Your task to perform on an android device: Do I have any events this weekend? Image 0: 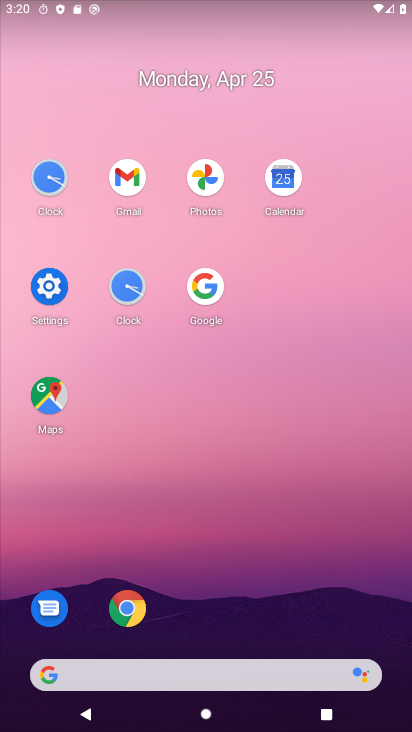
Step 0: click (290, 457)
Your task to perform on an android device: Do I have any events this weekend? Image 1: 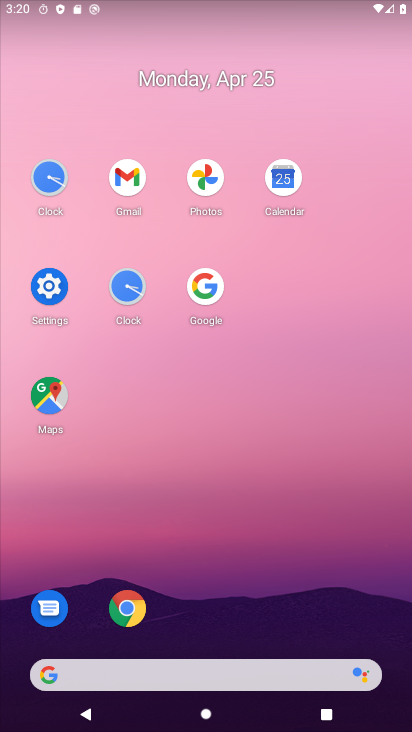
Step 1: click (282, 178)
Your task to perform on an android device: Do I have any events this weekend? Image 2: 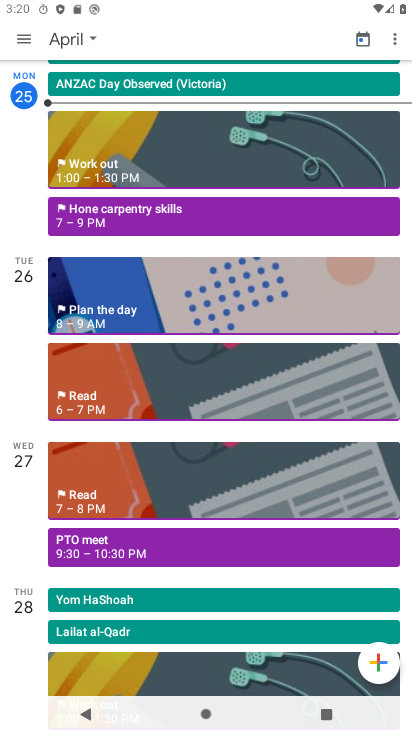
Step 2: click (23, 45)
Your task to perform on an android device: Do I have any events this weekend? Image 3: 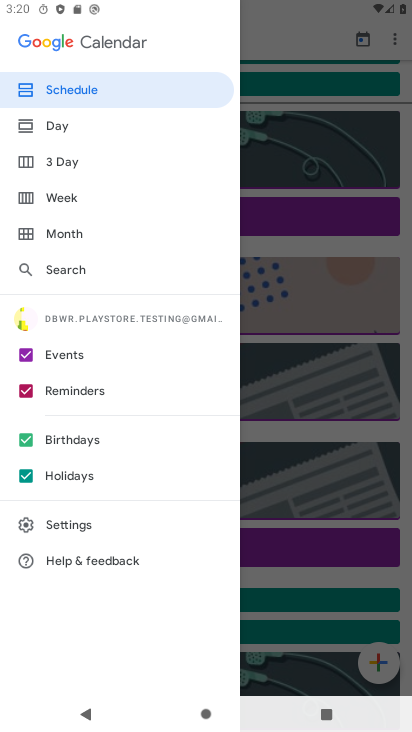
Step 3: click (64, 205)
Your task to perform on an android device: Do I have any events this weekend? Image 4: 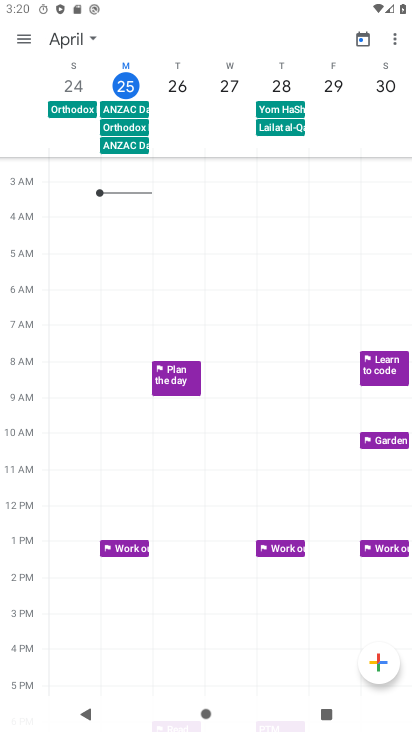
Step 4: click (383, 82)
Your task to perform on an android device: Do I have any events this weekend? Image 5: 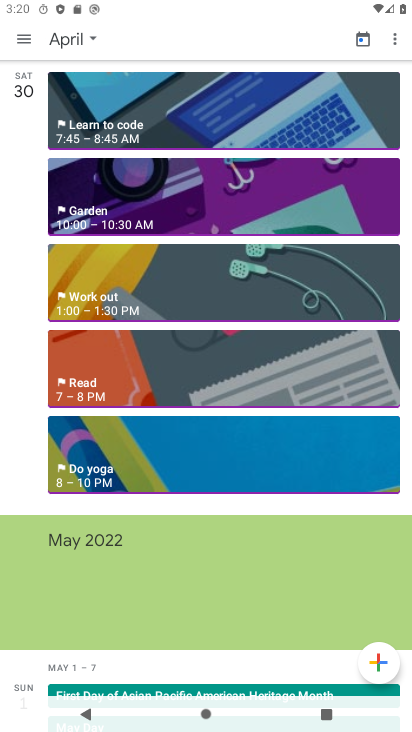
Step 5: task complete